Your task to perform on an android device: change the upload size in google photos Image 0: 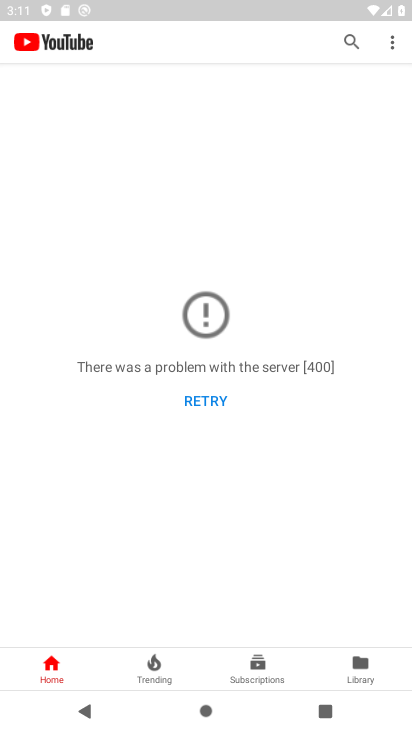
Step 0: press home button
Your task to perform on an android device: change the upload size in google photos Image 1: 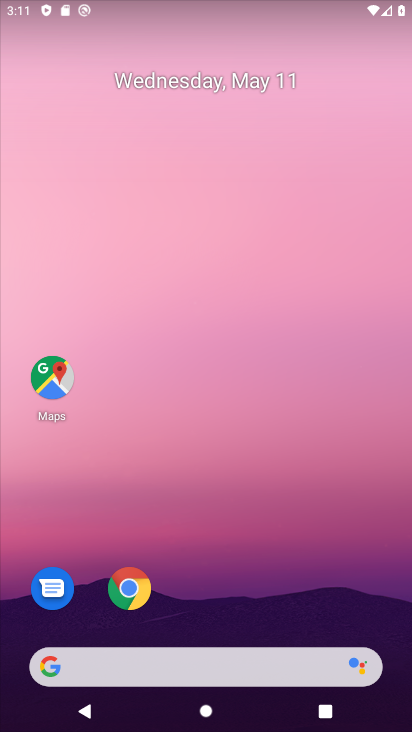
Step 1: drag from (197, 565) to (373, 52)
Your task to perform on an android device: change the upload size in google photos Image 2: 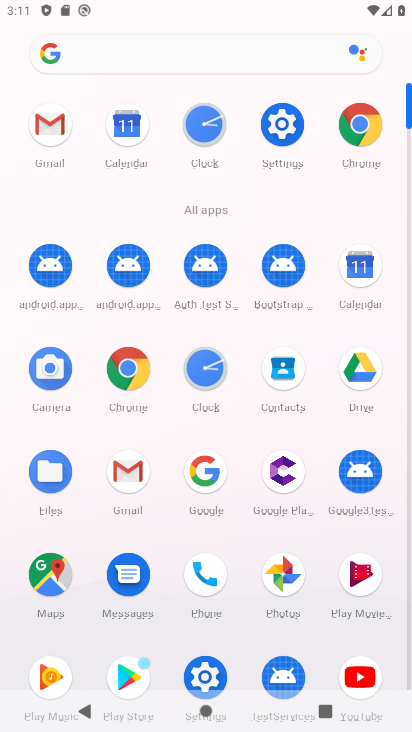
Step 2: click (291, 589)
Your task to perform on an android device: change the upload size in google photos Image 3: 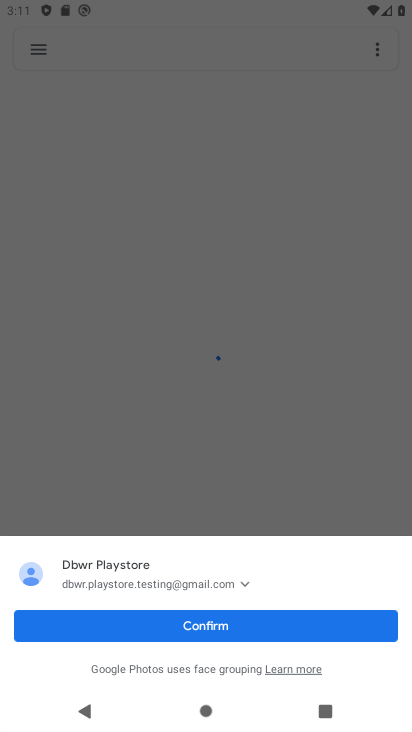
Step 3: click (29, 44)
Your task to perform on an android device: change the upload size in google photos Image 4: 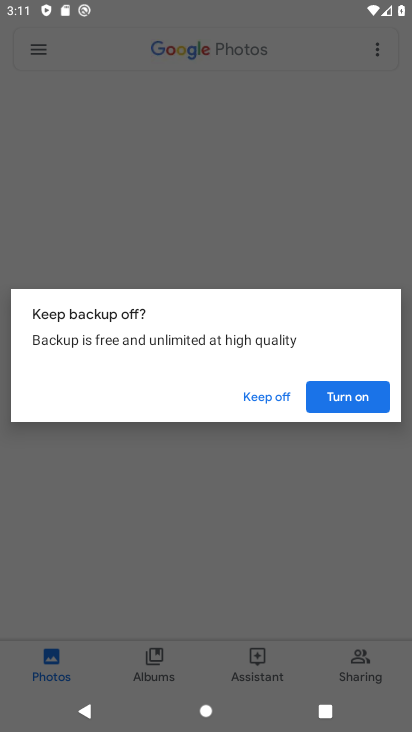
Step 4: click (175, 624)
Your task to perform on an android device: change the upload size in google photos Image 5: 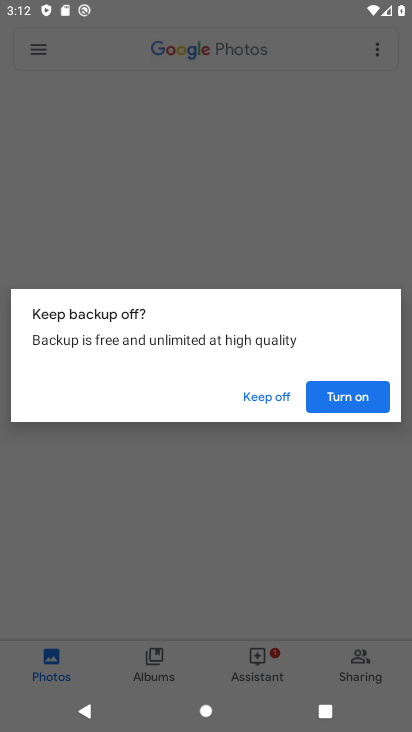
Step 5: click (334, 386)
Your task to perform on an android device: change the upload size in google photos Image 6: 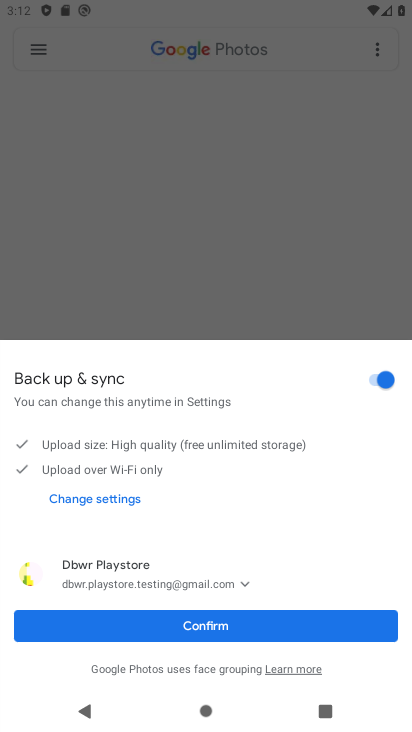
Step 6: click (236, 622)
Your task to perform on an android device: change the upload size in google photos Image 7: 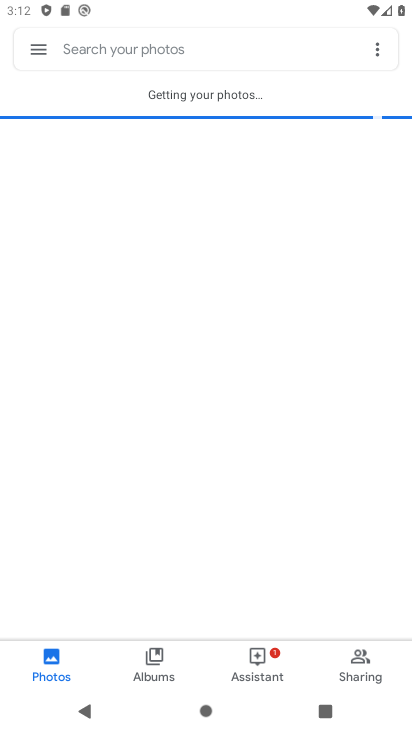
Step 7: click (38, 42)
Your task to perform on an android device: change the upload size in google photos Image 8: 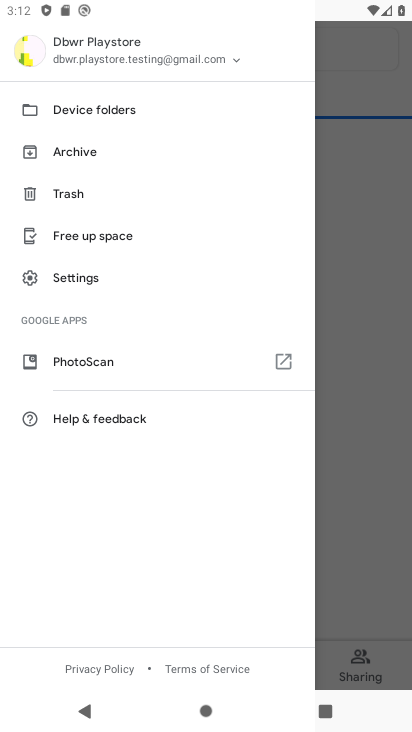
Step 8: click (87, 280)
Your task to perform on an android device: change the upload size in google photos Image 9: 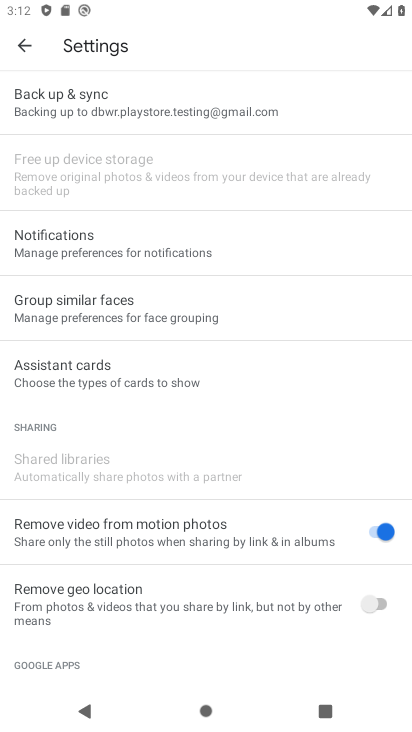
Step 9: click (108, 238)
Your task to perform on an android device: change the upload size in google photos Image 10: 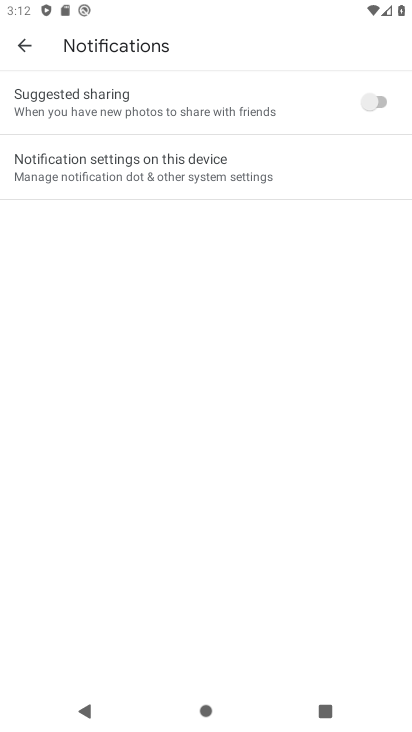
Step 10: click (32, 64)
Your task to perform on an android device: change the upload size in google photos Image 11: 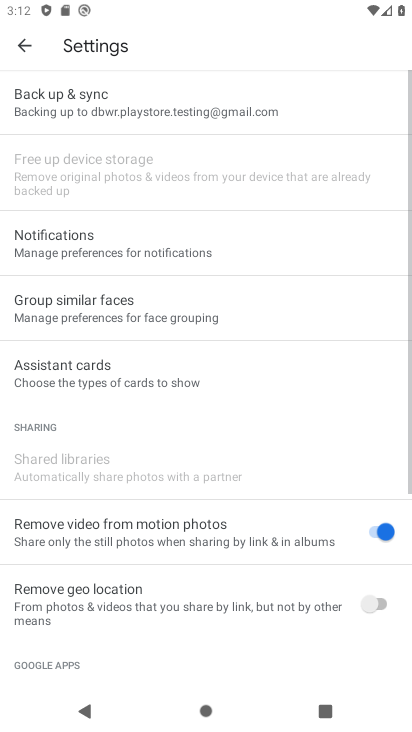
Step 11: click (145, 118)
Your task to perform on an android device: change the upload size in google photos Image 12: 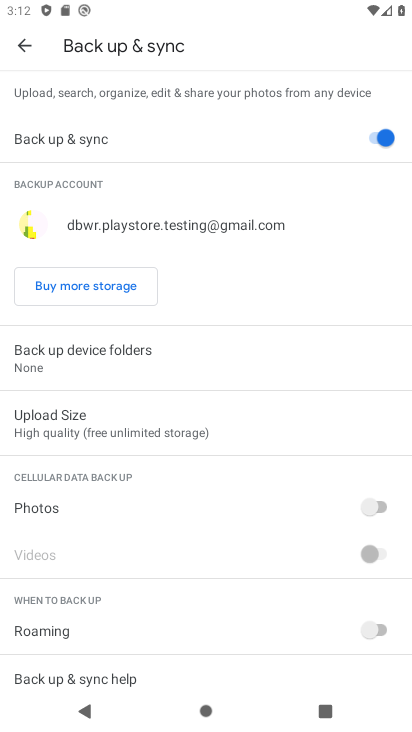
Step 12: click (161, 432)
Your task to perform on an android device: change the upload size in google photos Image 13: 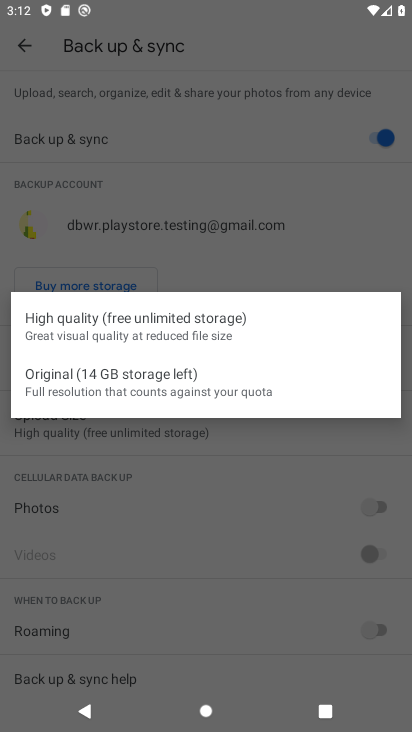
Step 13: click (155, 386)
Your task to perform on an android device: change the upload size in google photos Image 14: 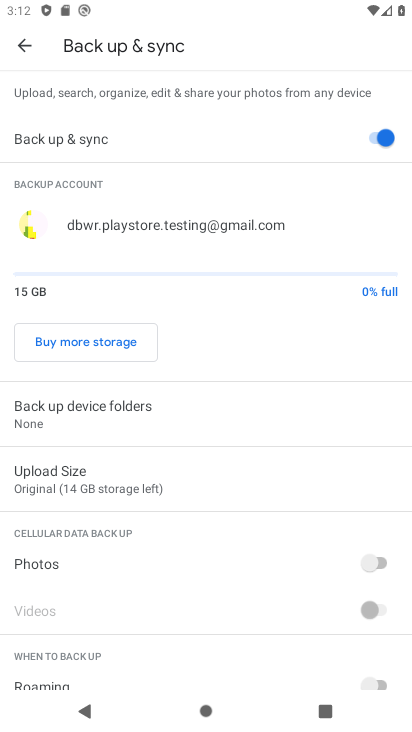
Step 14: task complete